Your task to perform on an android device: open app "Roku - Official Remote Control" Image 0: 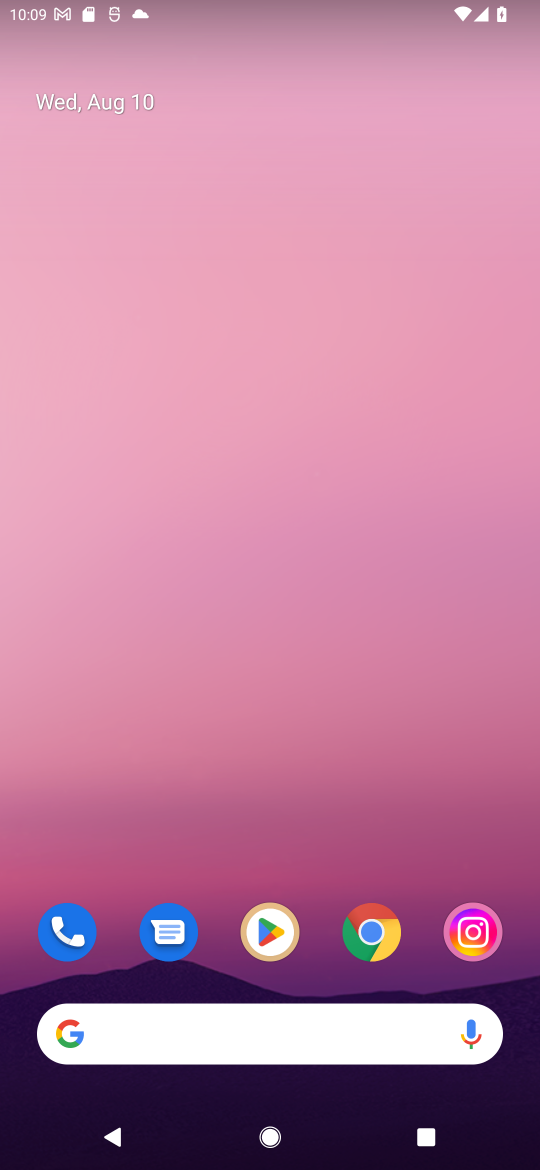
Step 0: click (286, 925)
Your task to perform on an android device: open app "Roku - Official Remote Control" Image 1: 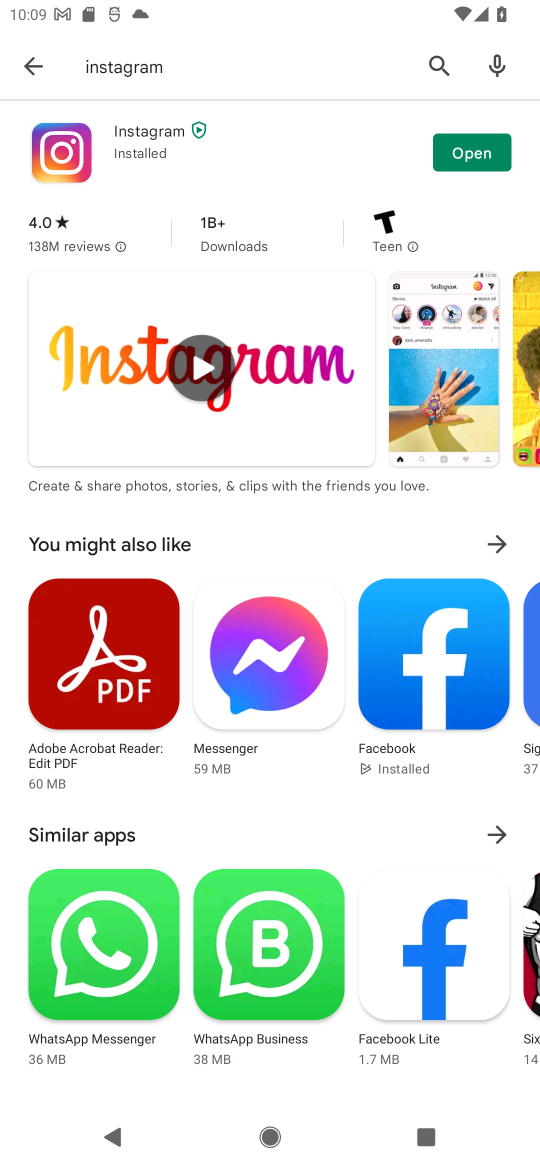
Step 1: click (427, 74)
Your task to perform on an android device: open app "Roku - Official Remote Control" Image 2: 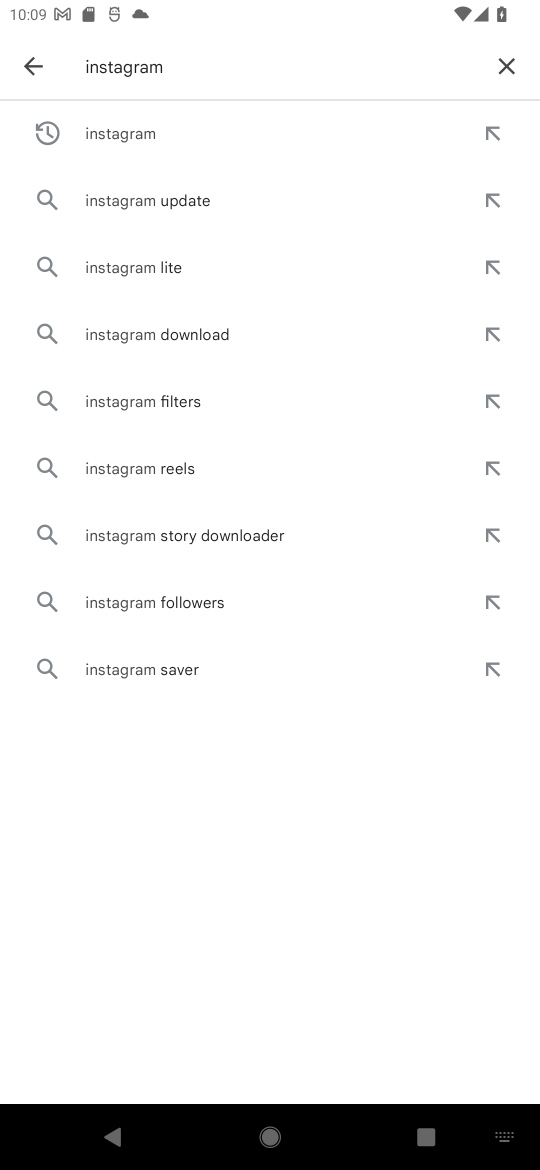
Step 2: click (510, 73)
Your task to perform on an android device: open app "Roku - Official Remote Control" Image 3: 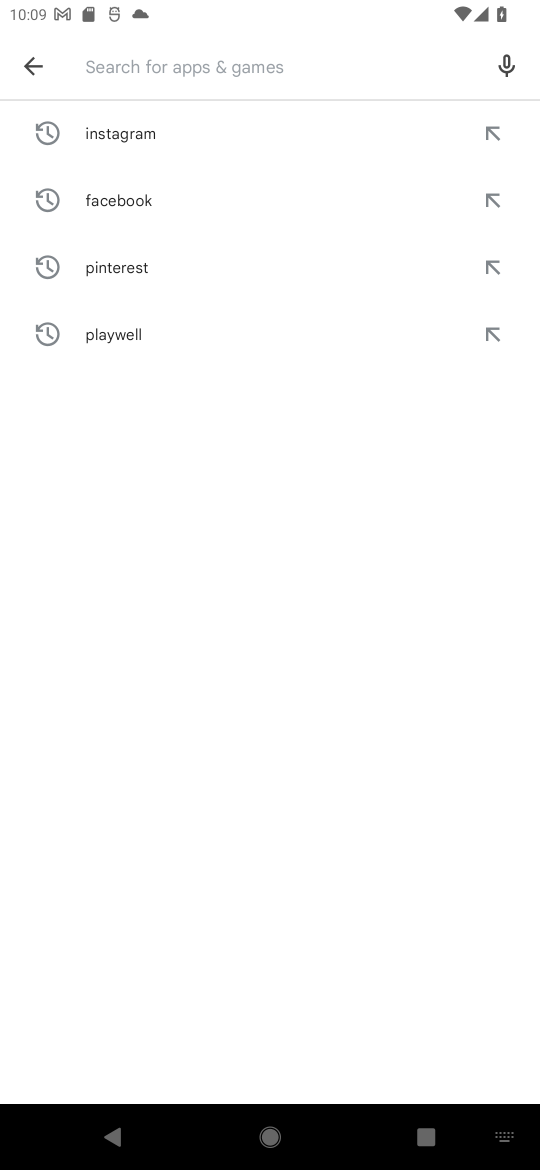
Step 3: type "roku"
Your task to perform on an android device: open app "Roku - Official Remote Control" Image 4: 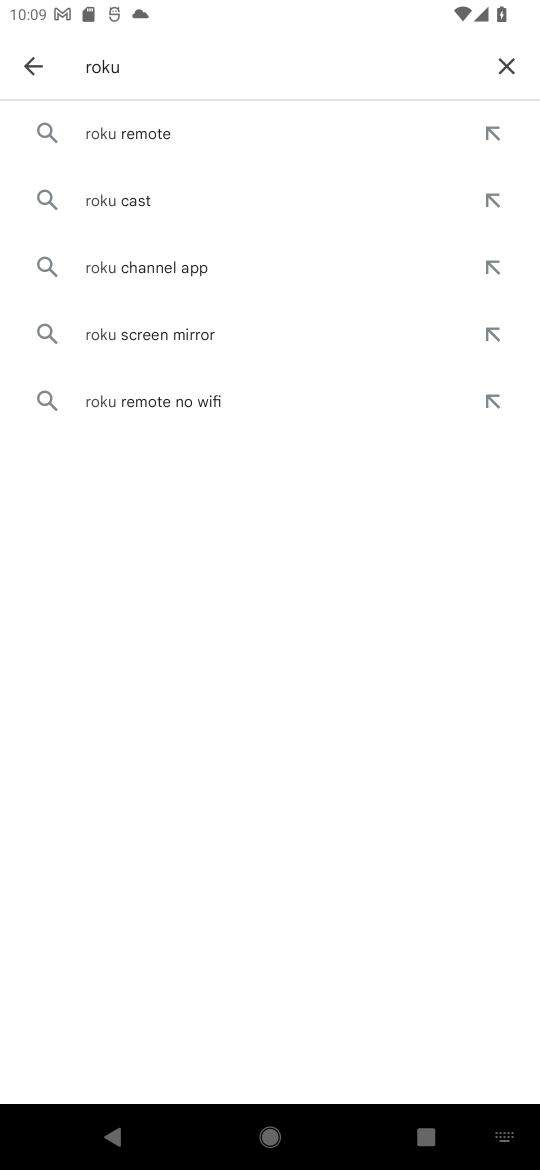
Step 4: click (192, 133)
Your task to perform on an android device: open app "Roku - Official Remote Control" Image 5: 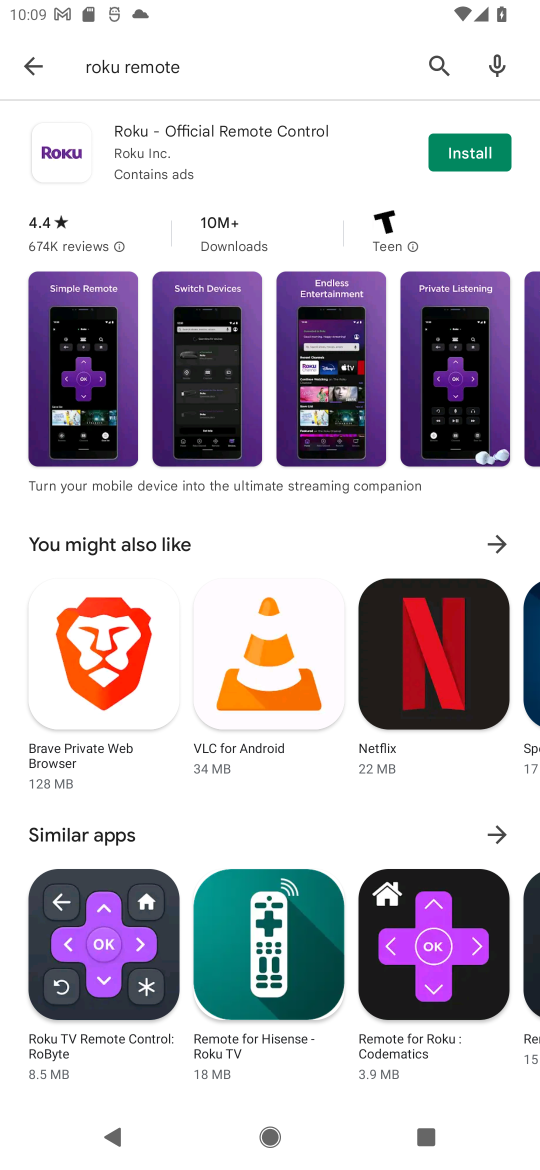
Step 5: click (192, 133)
Your task to perform on an android device: open app "Roku - Official Remote Control" Image 6: 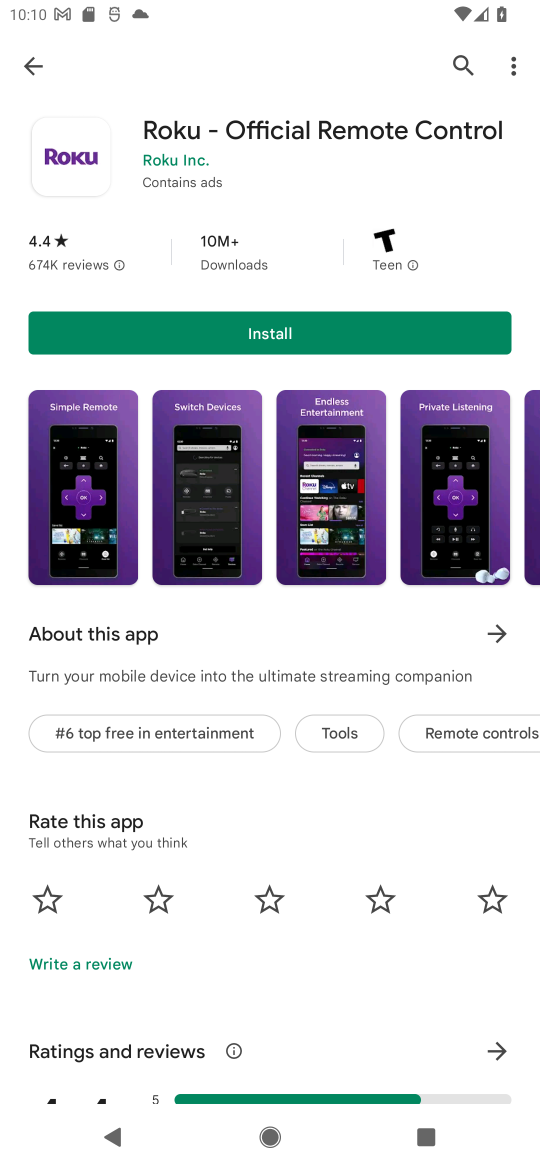
Step 6: click (192, 133)
Your task to perform on an android device: open app "Roku - Official Remote Control" Image 7: 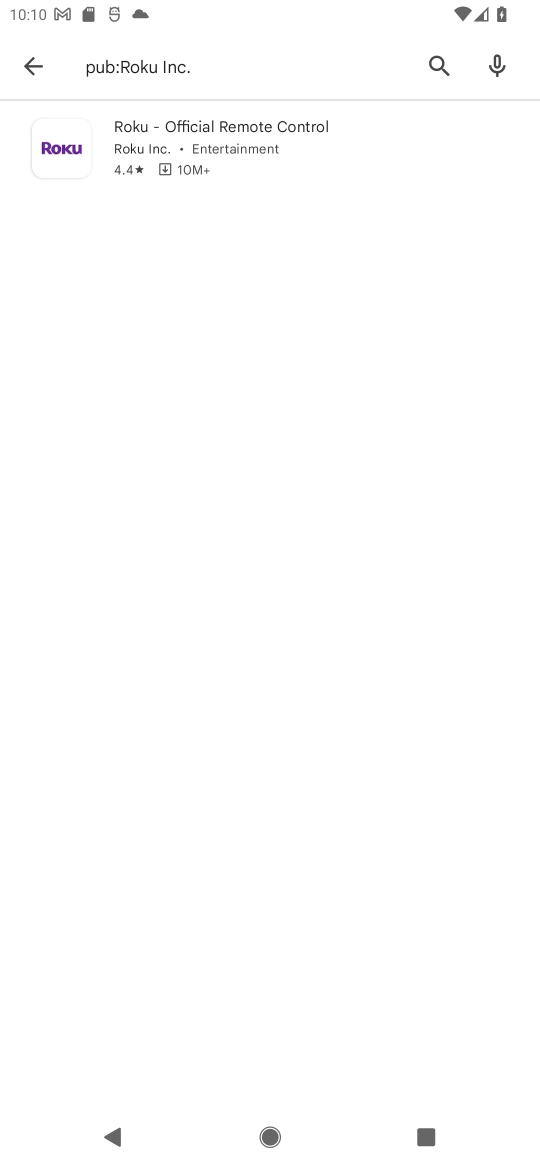
Step 7: task complete